Your task to perform on an android device: Clear all items from cart on bestbuy. Search for "macbook" on bestbuy, select the first entry, add it to the cart, then select checkout. Image 0: 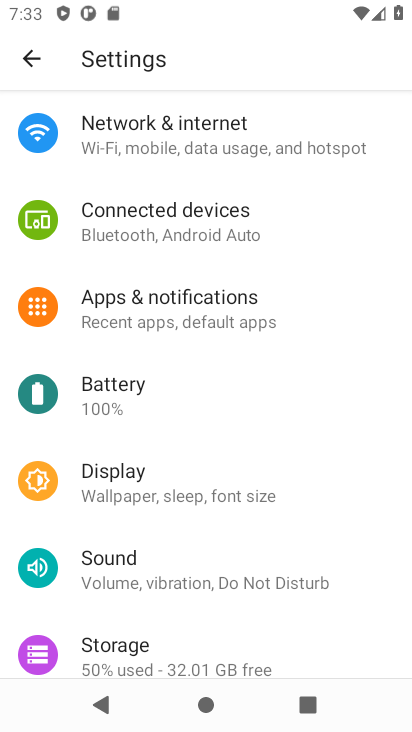
Step 0: press home button
Your task to perform on an android device: Clear all items from cart on bestbuy. Search for "macbook" on bestbuy, select the first entry, add it to the cart, then select checkout. Image 1: 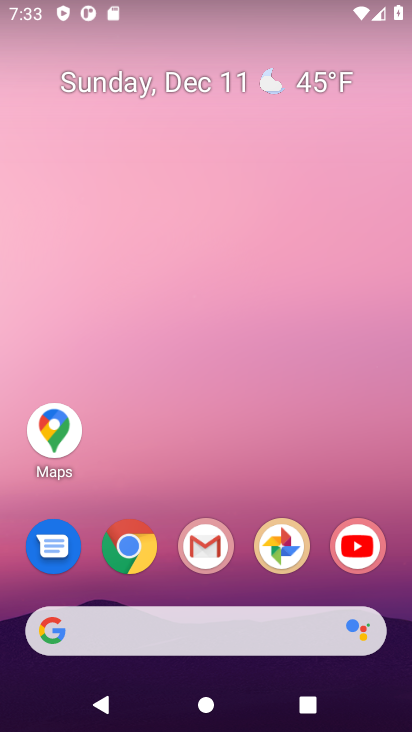
Step 1: press home button
Your task to perform on an android device: Clear all items from cart on bestbuy. Search for "macbook" on bestbuy, select the first entry, add it to the cart, then select checkout. Image 2: 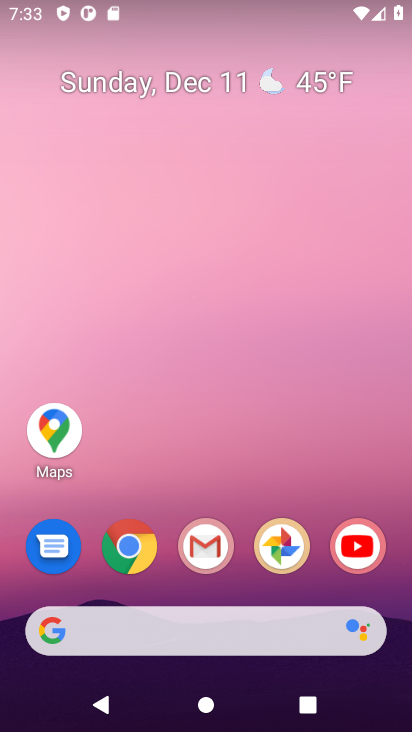
Step 2: click (142, 557)
Your task to perform on an android device: Clear all items from cart on bestbuy. Search for "macbook" on bestbuy, select the first entry, add it to the cart, then select checkout. Image 3: 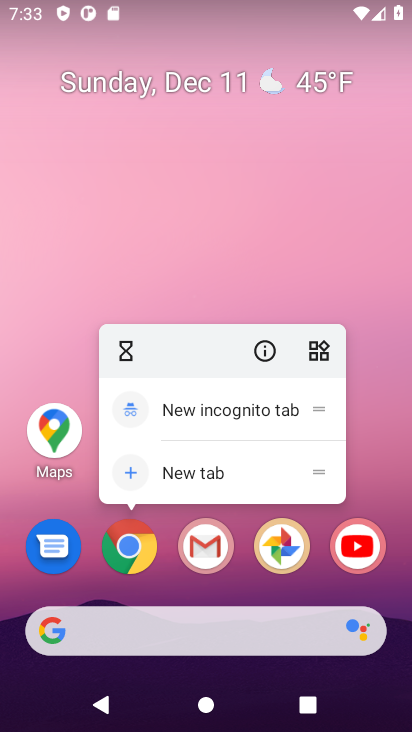
Step 3: click (145, 556)
Your task to perform on an android device: Clear all items from cart on bestbuy. Search for "macbook" on bestbuy, select the first entry, add it to the cart, then select checkout. Image 4: 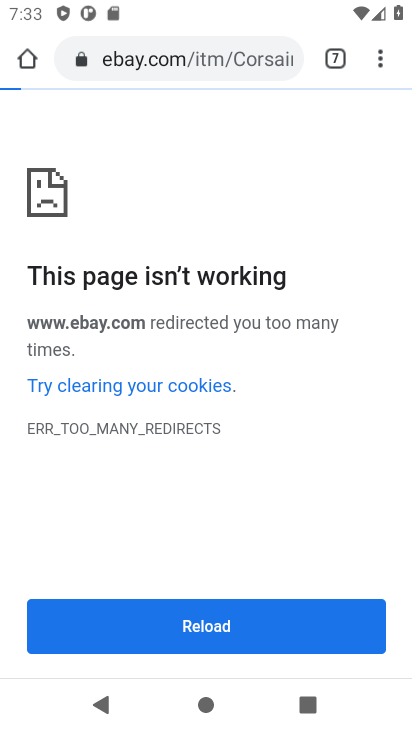
Step 4: click (240, 633)
Your task to perform on an android device: Clear all items from cart on bestbuy. Search for "macbook" on bestbuy, select the first entry, add it to the cart, then select checkout. Image 5: 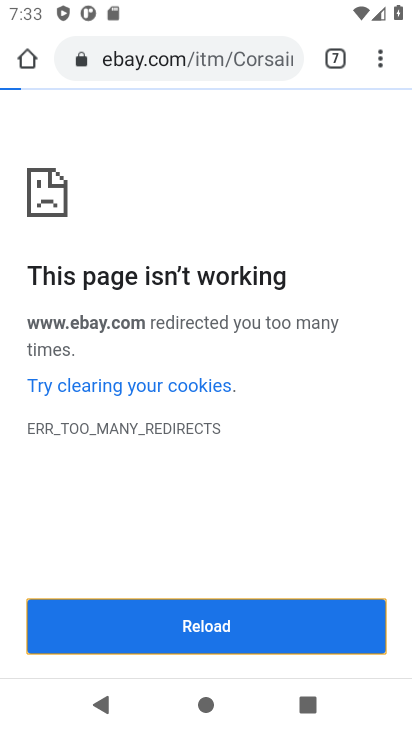
Step 5: click (240, 632)
Your task to perform on an android device: Clear all items from cart on bestbuy. Search for "macbook" on bestbuy, select the first entry, add it to the cart, then select checkout. Image 6: 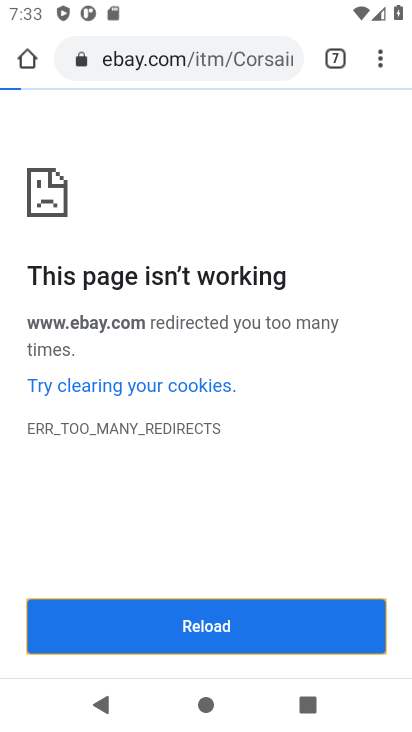
Step 6: click (321, 631)
Your task to perform on an android device: Clear all items from cart on bestbuy. Search for "macbook" on bestbuy, select the first entry, add it to the cart, then select checkout. Image 7: 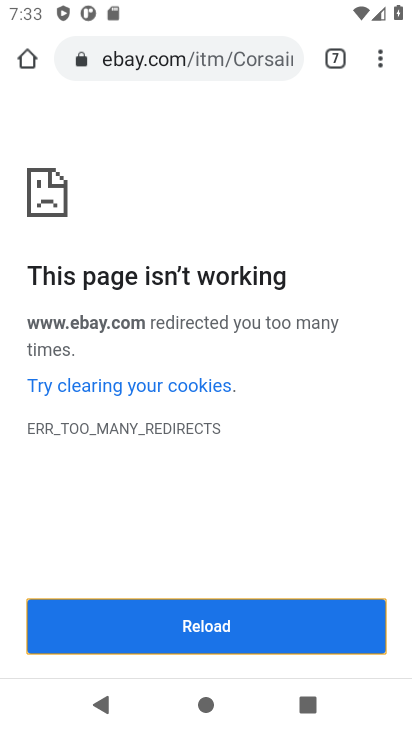
Step 7: click (299, 630)
Your task to perform on an android device: Clear all items from cart on bestbuy. Search for "macbook" on bestbuy, select the first entry, add it to the cart, then select checkout. Image 8: 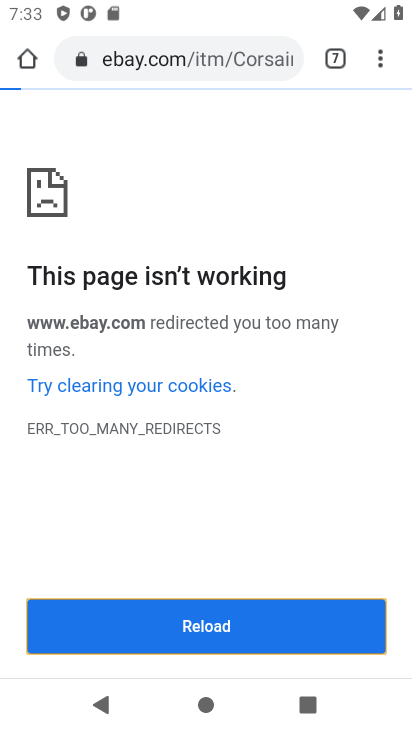
Step 8: click (194, 387)
Your task to perform on an android device: Clear all items from cart on bestbuy. Search for "macbook" on bestbuy, select the first entry, add it to the cart, then select checkout. Image 9: 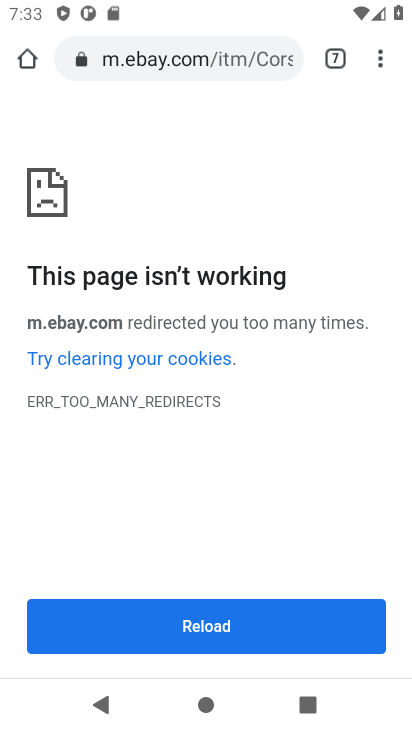
Step 9: click (205, 362)
Your task to perform on an android device: Clear all items from cart on bestbuy. Search for "macbook" on bestbuy, select the first entry, add it to the cart, then select checkout. Image 10: 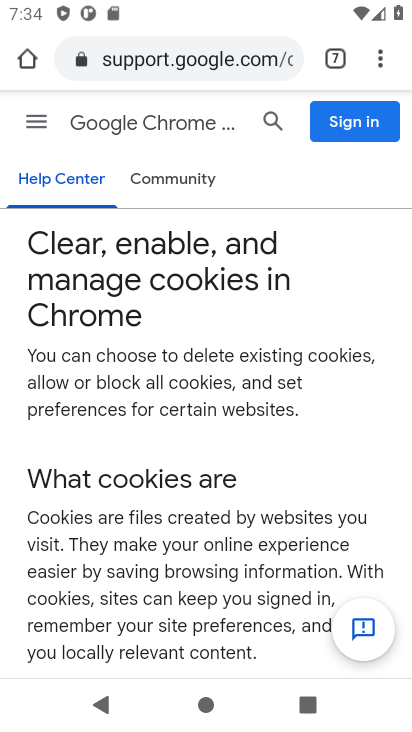
Step 10: click (95, 710)
Your task to perform on an android device: Clear all items from cart on bestbuy. Search for "macbook" on bestbuy, select the first entry, add it to the cart, then select checkout. Image 11: 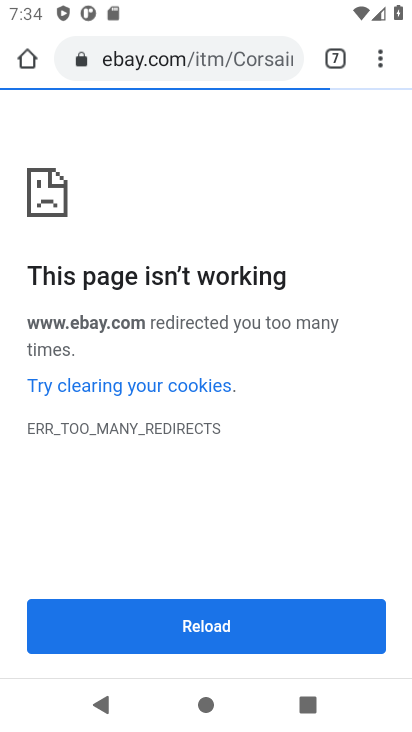
Step 11: click (246, 639)
Your task to perform on an android device: Clear all items from cart on bestbuy. Search for "macbook" on bestbuy, select the first entry, add it to the cart, then select checkout. Image 12: 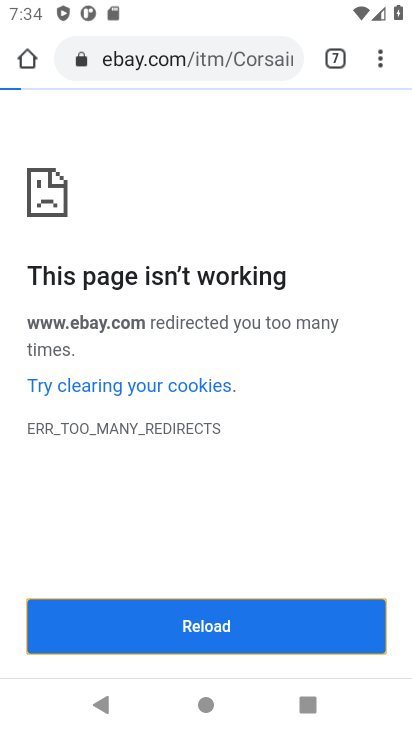
Step 12: press home button
Your task to perform on an android device: Clear all items from cart on bestbuy. Search for "macbook" on bestbuy, select the first entry, add it to the cart, then select checkout. Image 13: 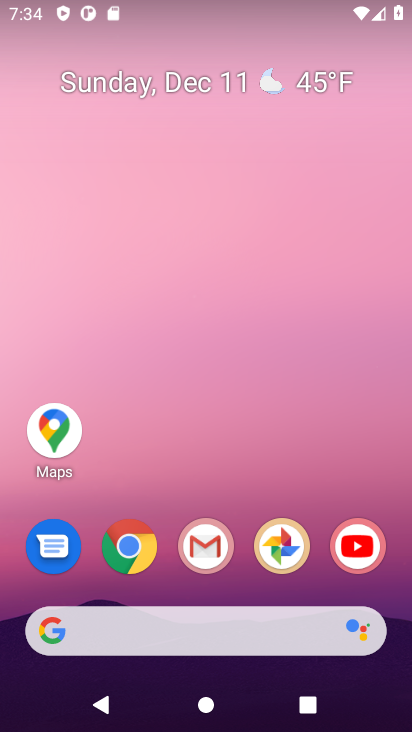
Step 13: click (131, 550)
Your task to perform on an android device: Clear all items from cart on bestbuy. Search for "macbook" on bestbuy, select the first entry, add it to the cart, then select checkout. Image 14: 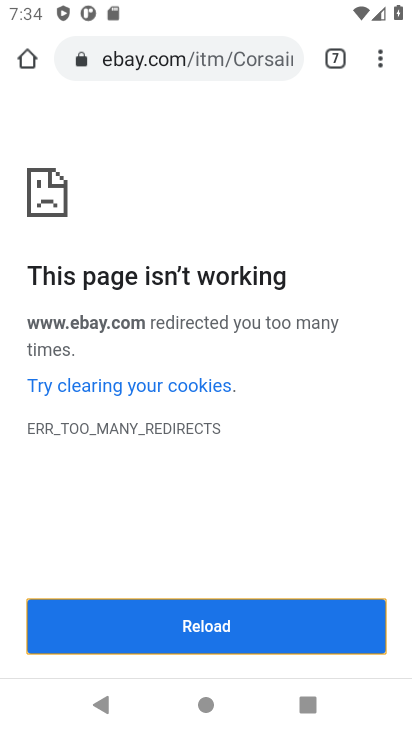
Step 14: press home button
Your task to perform on an android device: Clear all items from cart on bestbuy. Search for "macbook" on bestbuy, select the first entry, add it to the cart, then select checkout. Image 15: 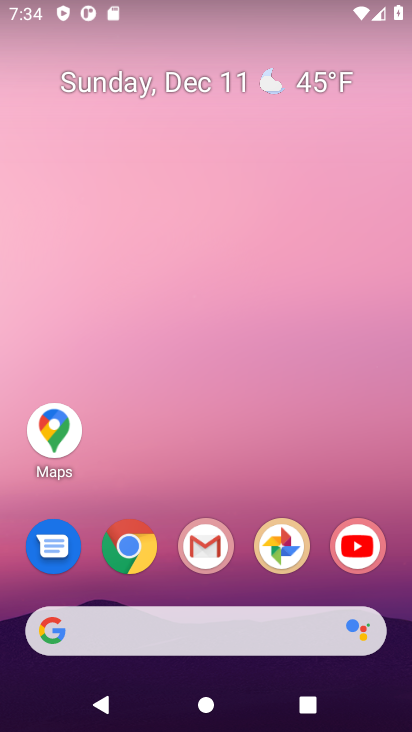
Step 15: click (130, 548)
Your task to perform on an android device: Clear all items from cart on bestbuy. Search for "macbook" on bestbuy, select the first entry, add it to the cart, then select checkout. Image 16: 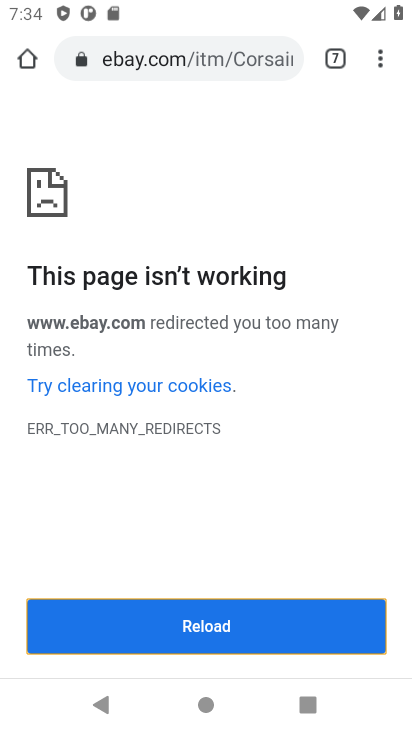
Step 16: click (150, 61)
Your task to perform on an android device: Clear all items from cart on bestbuy. Search for "macbook" on bestbuy, select the first entry, add it to the cart, then select checkout. Image 17: 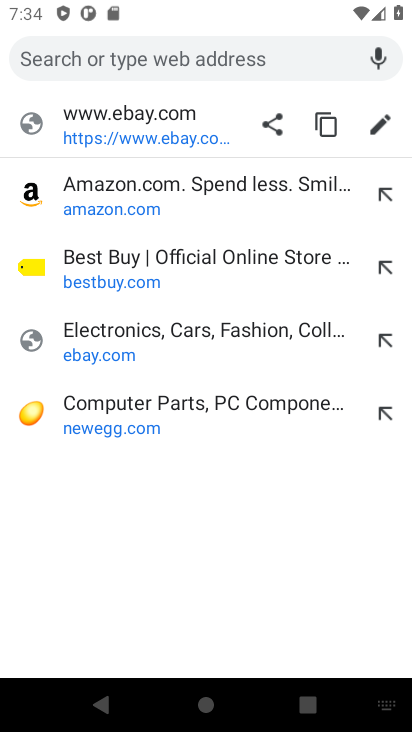
Step 17: click (122, 289)
Your task to perform on an android device: Clear all items from cart on bestbuy. Search for "macbook" on bestbuy, select the first entry, add it to the cart, then select checkout. Image 18: 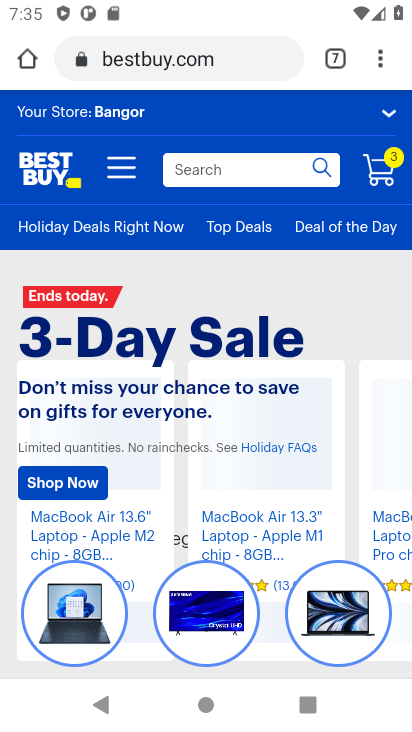
Step 18: click (384, 167)
Your task to perform on an android device: Clear all items from cart on bestbuy. Search for "macbook" on bestbuy, select the first entry, add it to the cart, then select checkout. Image 19: 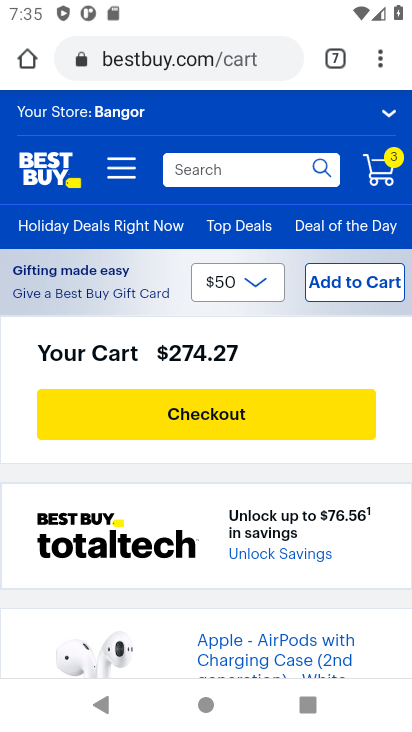
Step 19: drag from (196, 512) to (221, 227)
Your task to perform on an android device: Clear all items from cart on bestbuy. Search for "macbook" on bestbuy, select the first entry, add it to the cart, then select checkout. Image 20: 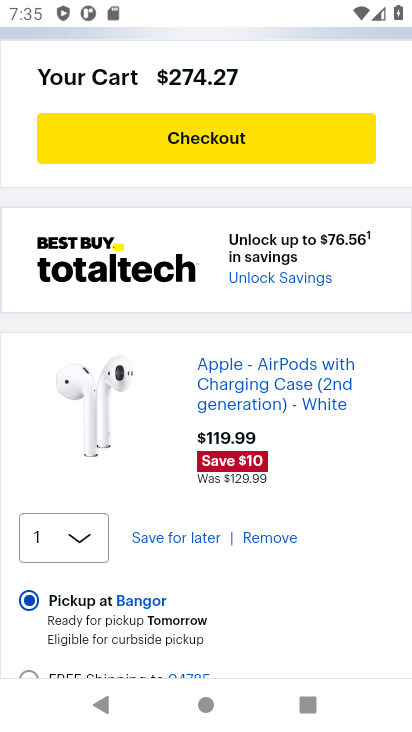
Step 20: click (250, 532)
Your task to perform on an android device: Clear all items from cart on bestbuy. Search for "macbook" on bestbuy, select the first entry, add it to the cart, then select checkout. Image 21: 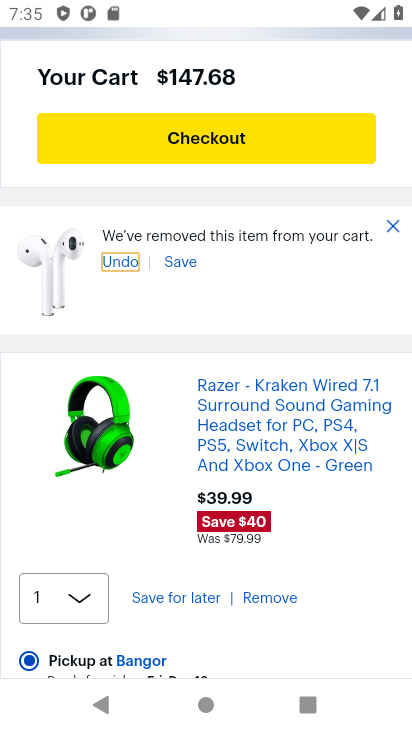
Step 21: click (259, 603)
Your task to perform on an android device: Clear all items from cart on bestbuy. Search for "macbook" on bestbuy, select the first entry, add it to the cart, then select checkout. Image 22: 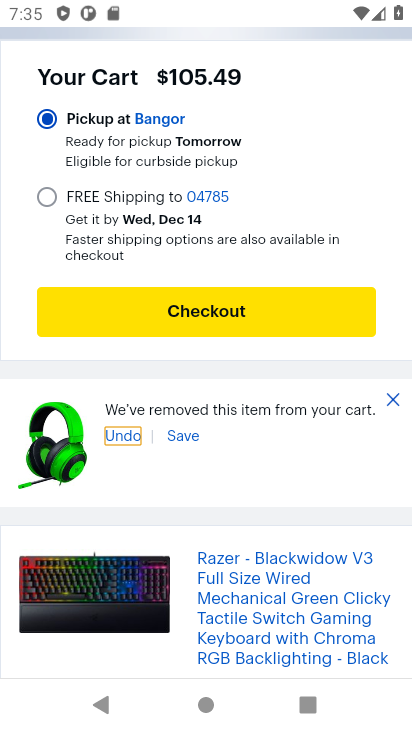
Step 22: drag from (213, 531) to (220, 244)
Your task to perform on an android device: Clear all items from cart on bestbuy. Search for "macbook" on bestbuy, select the first entry, add it to the cart, then select checkout. Image 23: 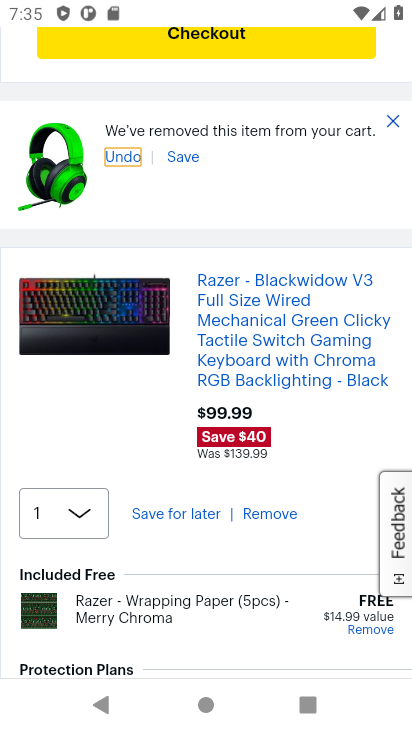
Step 23: click (269, 522)
Your task to perform on an android device: Clear all items from cart on bestbuy. Search for "macbook" on bestbuy, select the first entry, add it to the cart, then select checkout. Image 24: 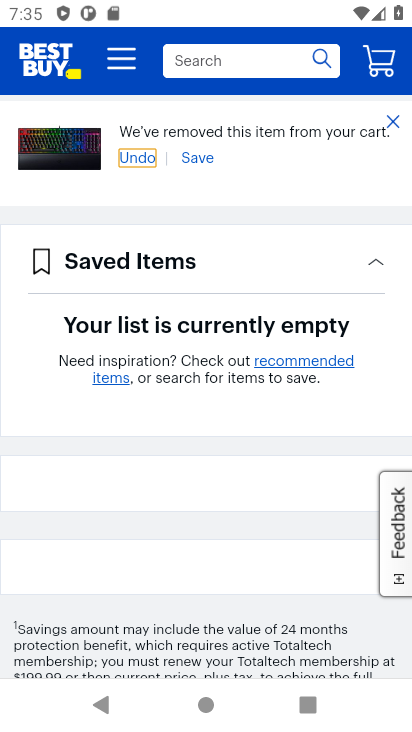
Step 24: drag from (213, 469) to (210, 700)
Your task to perform on an android device: Clear all items from cart on bestbuy. Search for "macbook" on bestbuy, select the first entry, add it to the cart, then select checkout. Image 25: 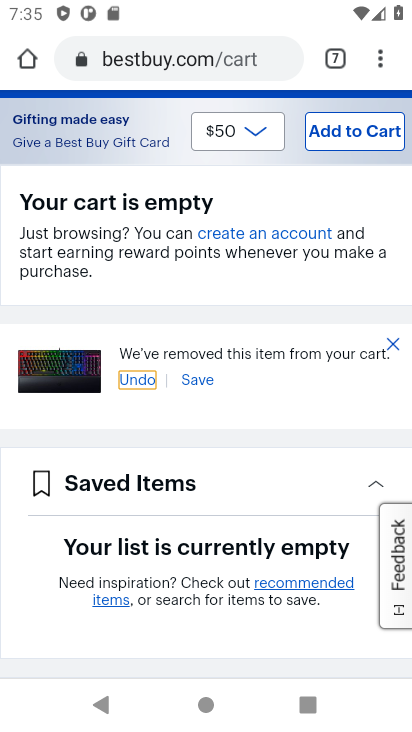
Step 25: drag from (185, 255) to (194, 522)
Your task to perform on an android device: Clear all items from cart on bestbuy. Search for "macbook" on bestbuy, select the first entry, add it to the cart, then select checkout. Image 26: 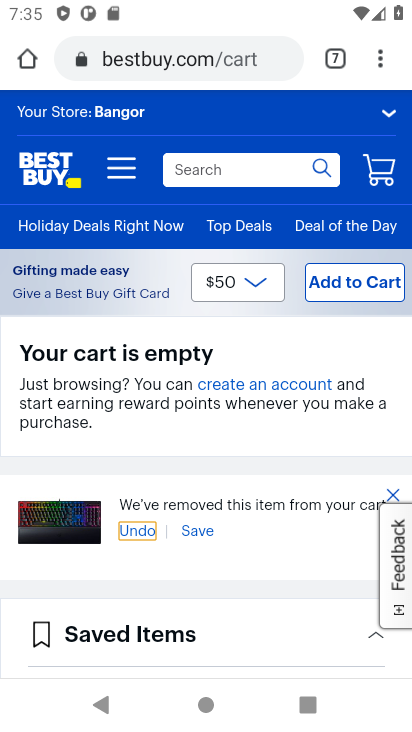
Step 26: click (177, 171)
Your task to perform on an android device: Clear all items from cart on bestbuy. Search for "macbook" on bestbuy, select the first entry, add it to the cart, then select checkout. Image 27: 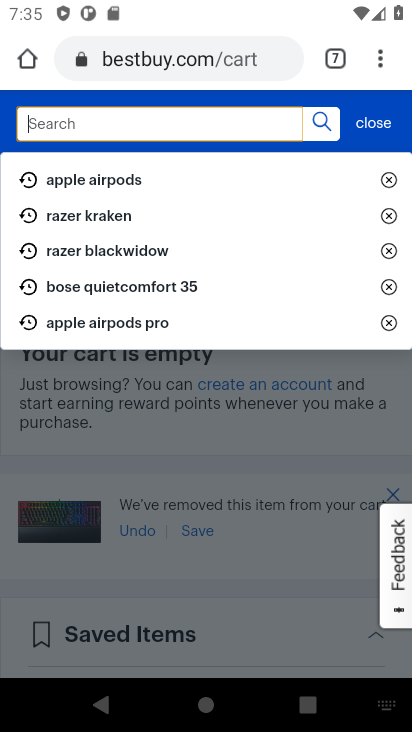
Step 27: type "macbook"
Your task to perform on an android device: Clear all items from cart on bestbuy. Search for "macbook" on bestbuy, select the first entry, add it to the cart, then select checkout. Image 28: 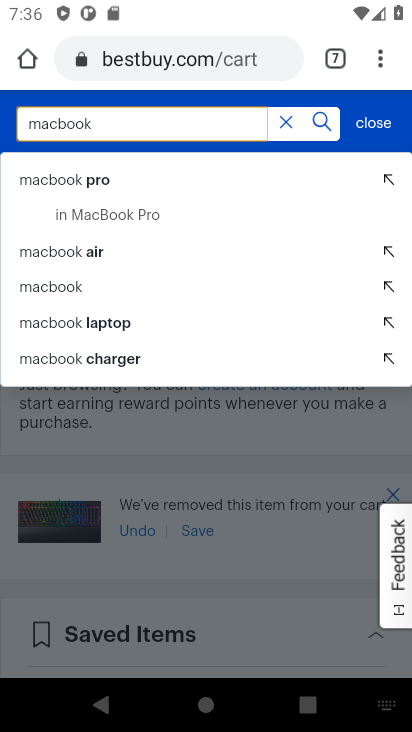
Step 28: click (80, 285)
Your task to perform on an android device: Clear all items from cart on bestbuy. Search for "macbook" on bestbuy, select the first entry, add it to the cart, then select checkout. Image 29: 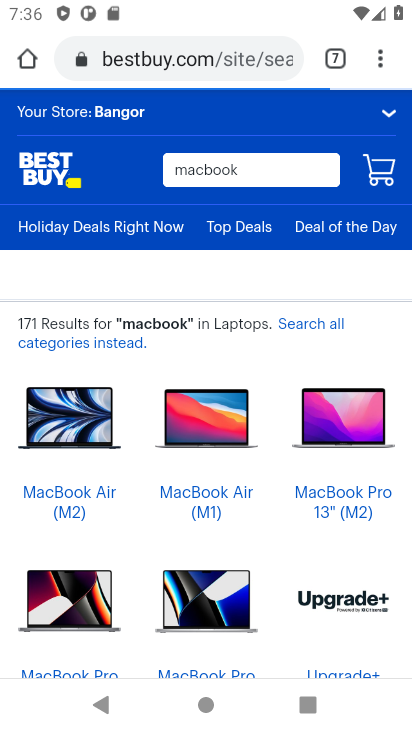
Step 29: drag from (141, 485) to (130, 151)
Your task to perform on an android device: Clear all items from cart on bestbuy. Search for "macbook" on bestbuy, select the first entry, add it to the cart, then select checkout. Image 30: 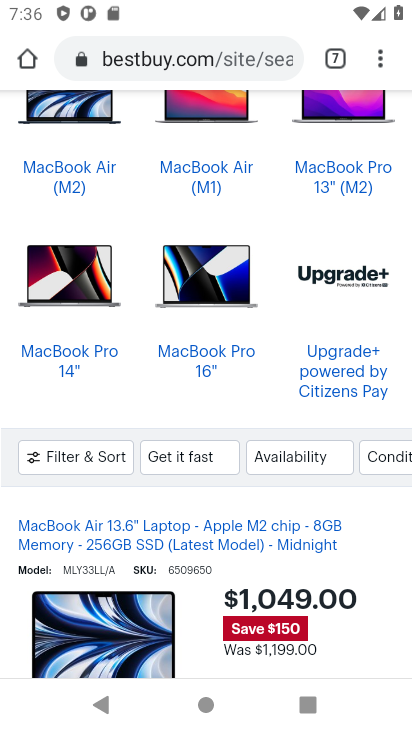
Step 30: drag from (161, 389) to (133, 179)
Your task to perform on an android device: Clear all items from cart on bestbuy. Search for "macbook" on bestbuy, select the first entry, add it to the cart, then select checkout. Image 31: 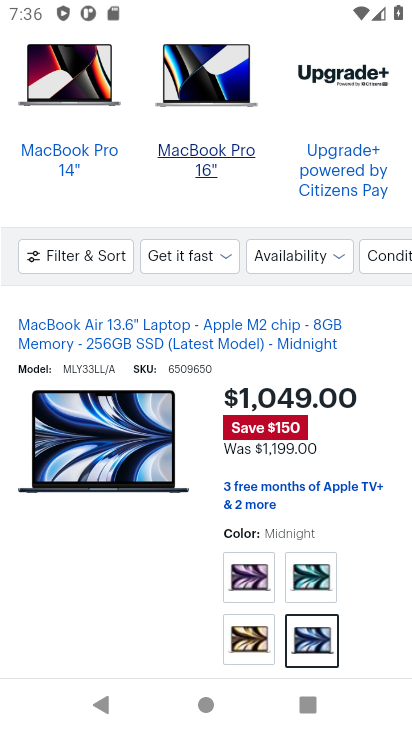
Step 31: click (204, 337)
Your task to perform on an android device: Clear all items from cart on bestbuy. Search for "macbook" on bestbuy, select the first entry, add it to the cart, then select checkout. Image 32: 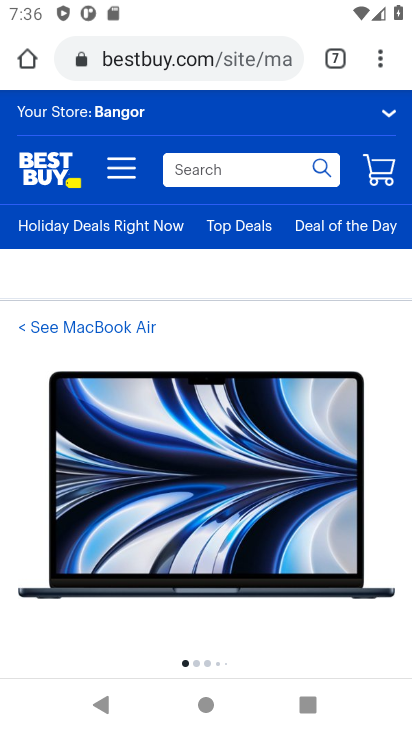
Step 32: drag from (212, 517) to (172, 198)
Your task to perform on an android device: Clear all items from cart on bestbuy. Search for "macbook" on bestbuy, select the first entry, add it to the cart, then select checkout. Image 33: 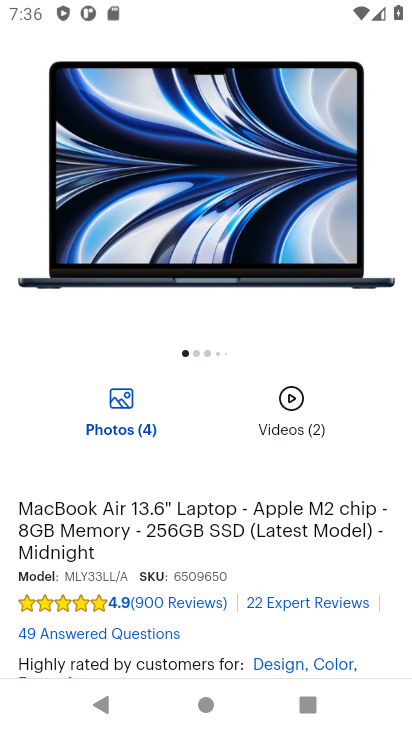
Step 33: drag from (219, 463) to (165, 130)
Your task to perform on an android device: Clear all items from cart on bestbuy. Search for "macbook" on bestbuy, select the first entry, add it to the cart, then select checkout. Image 34: 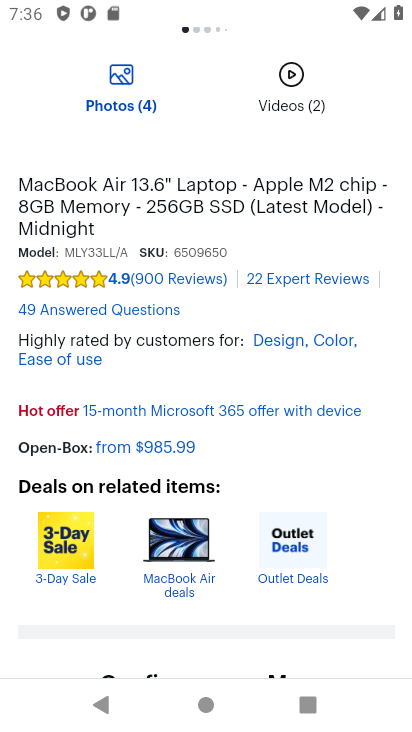
Step 34: drag from (197, 405) to (179, 200)
Your task to perform on an android device: Clear all items from cart on bestbuy. Search for "macbook" on bestbuy, select the first entry, add it to the cart, then select checkout. Image 35: 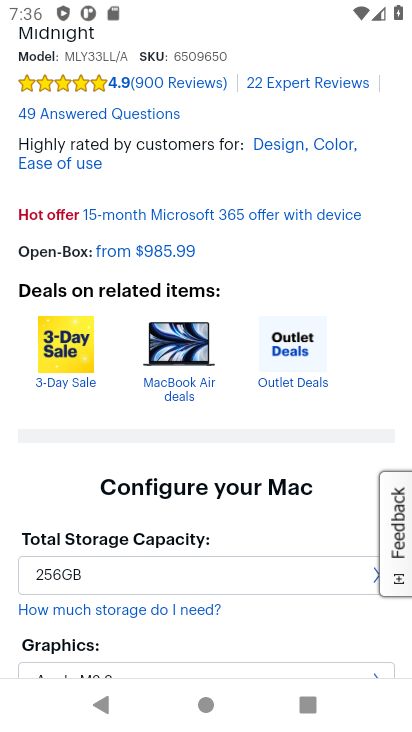
Step 35: drag from (227, 487) to (202, 172)
Your task to perform on an android device: Clear all items from cart on bestbuy. Search for "macbook" on bestbuy, select the first entry, add it to the cart, then select checkout. Image 36: 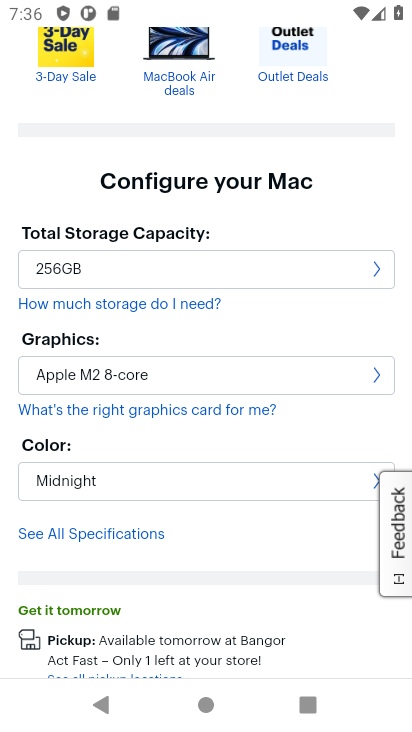
Step 36: drag from (200, 476) to (186, 200)
Your task to perform on an android device: Clear all items from cart on bestbuy. Search for "macbook" on bestbuy, select the first entry, add it to the cart, then select checkout. Image 37: 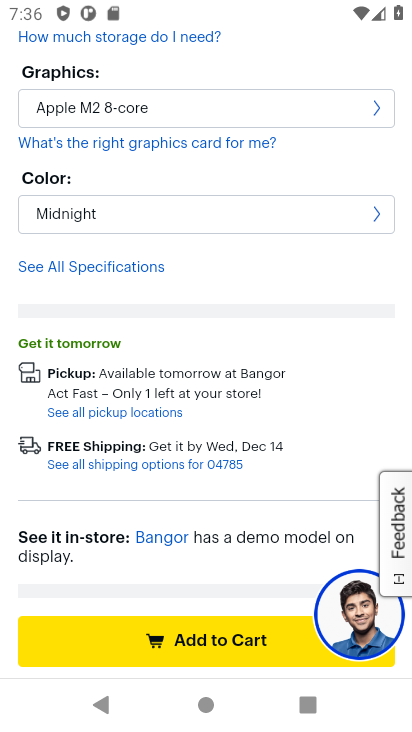
Step 37: drag from (183, 434) to (183, 245)
Your task to perform on an android device: Clear all items from cart on bestbuy. Search for "macbook" on bestbuy, select the first entry, add it to the cart, then select checkout. Image 38: 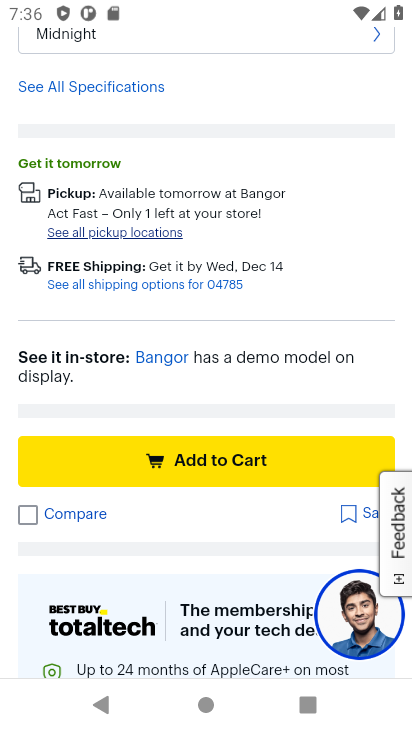
Step 38: click (198, 465)
Your task to perform on an android device: Clear all items from cart on bestbuy. Search for "macbook" on bestbuy, select the first entry, add it to the cart, then select checkout. Image 39: 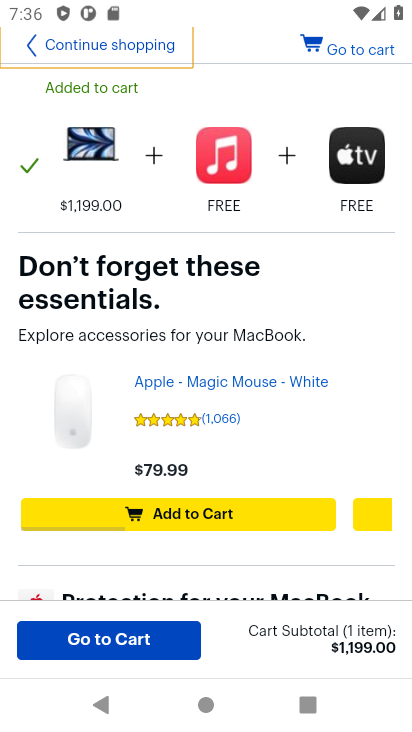
Step 39: click (354, 52)
Your task to perform on an android device: Clear all items from cart on bestbuy. Search for "macbook" on bestbuy, select the first entry, add it to the cart, then select checkout. Image 40: 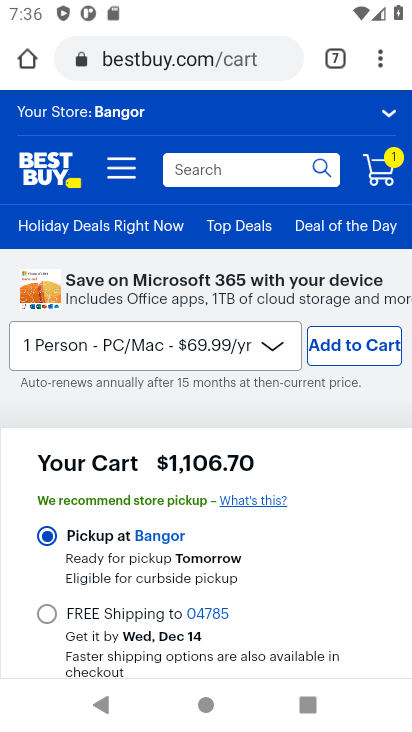
Step 40: drag from (283, 501) to (256, 129)
Your task to perform on an android device: Clear all items from cart on bestbuy. Search for "macbook" on bestbuy, select the first entry, add it to the cart, then select checkout. Image 41: 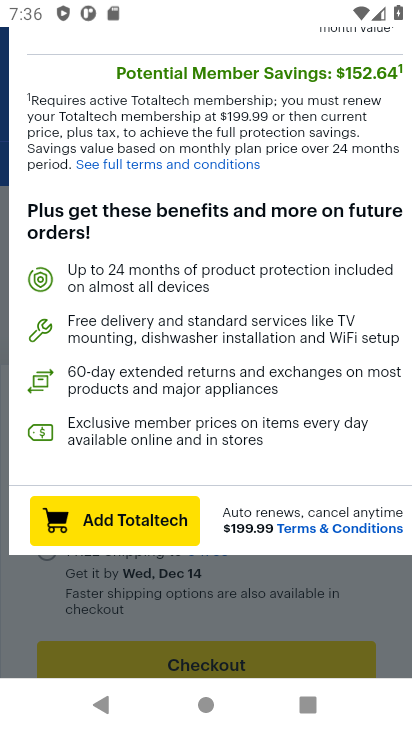
Step 41: drag from (247, 142) to (286, 452)
Your task to perform on an android device: Clear all items from cart on bestbuy. Search for "macbook" on bestbuy, select the first entry, add it to the cart, then select checkout. Image 42: 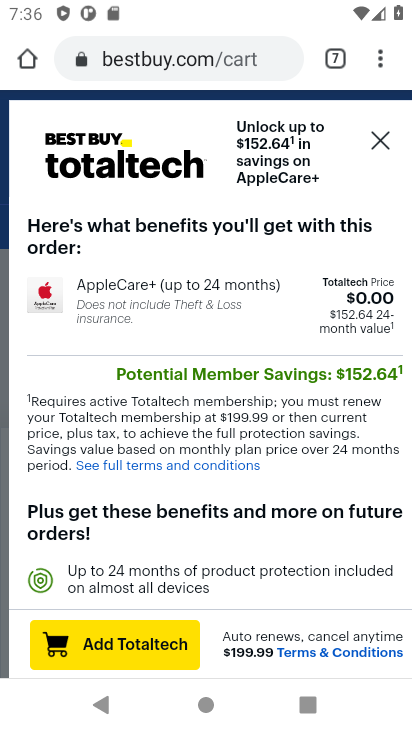
Step 42: click (385, 132)
Your task to perform on an android device: Clear all items from cart on bestbuy. Search for "macbook" on bestbuy, select the first entry, add it to the cart, then select checkout. Image 43: 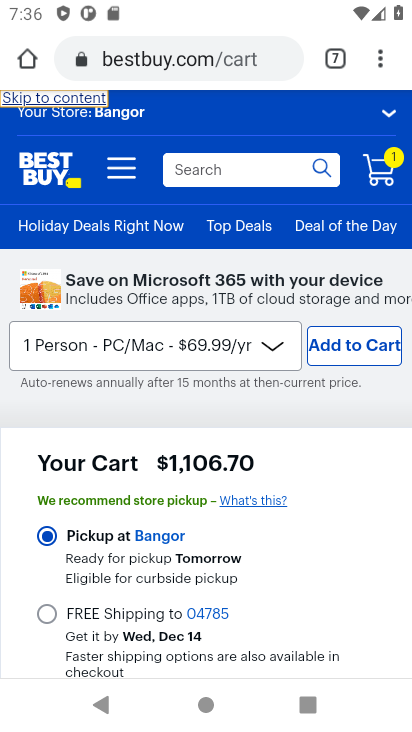
Step 43: drag from (258, 453) to (209, 90)
Your task to perform on an android device: Clear all items from cart on bestbuy. Search for "macbook" on bestbuy, select the first entry, add it to the cart, then select checkout. Image 44: 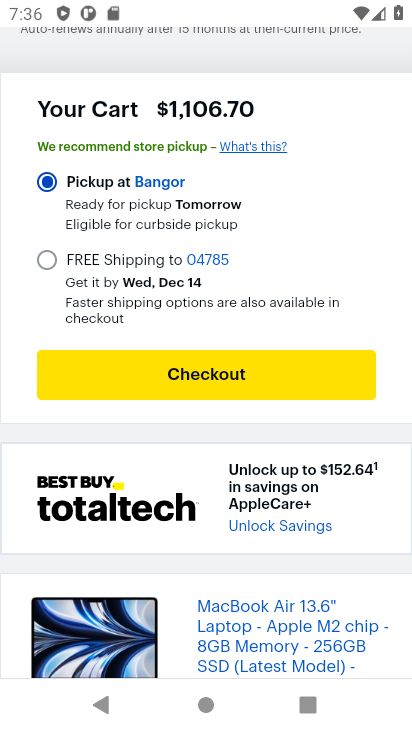
Step 44: click (203, 370)
Your task to perform on an android device: Clear all items from cart on bestbuy. Search for "macbook" on bestbuy, select the first entry, add it to the cart, then select checkout. Image 45: 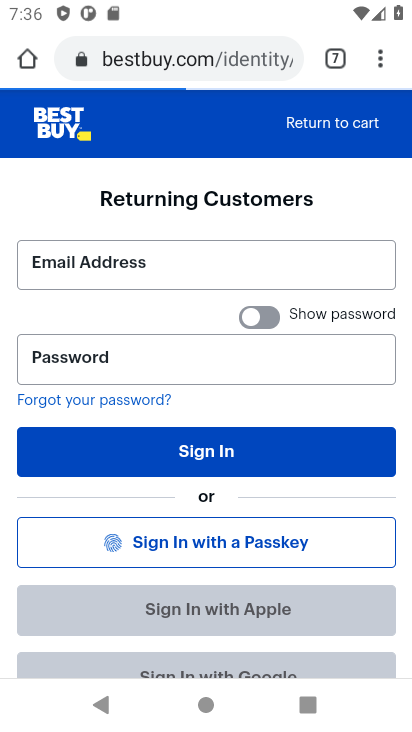
Step 45: task complete